Your task to perform on an android device: Toggle the flashlight Image 0: 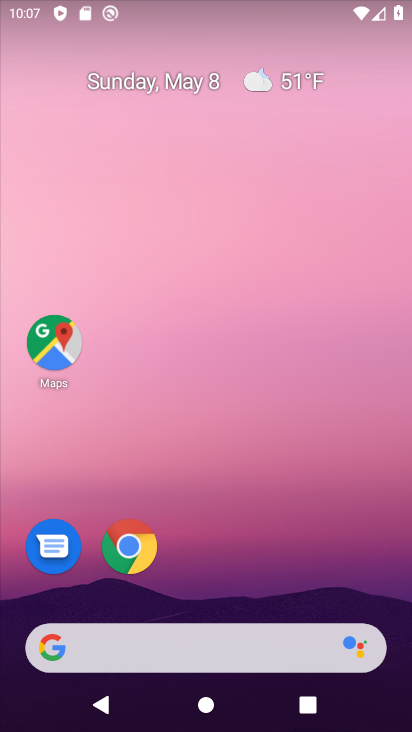
Step 0: drag from (242, 547) to (249, 61)
Your task to perform on an android device: Toggle the flashlight Image 1: 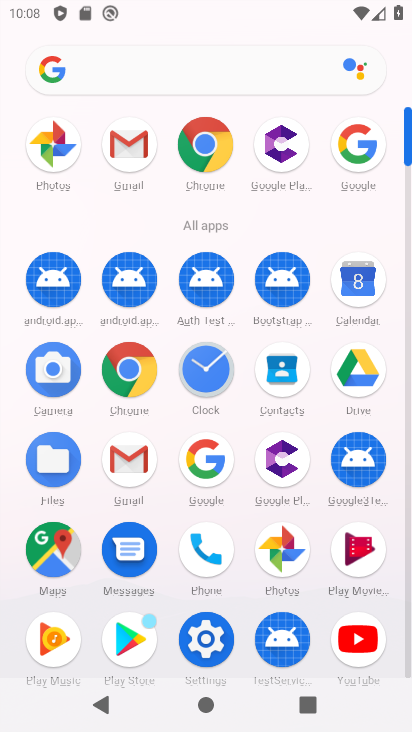
Step 1: drag from (241, 571) to (233, 348)
Your task to perform on an android device: Toggle the flashlight Image 2: 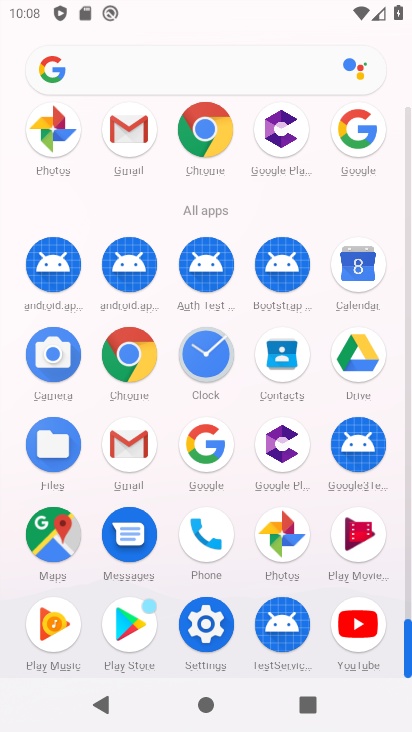
Step 2: click (206, 621)
Your task to perform on an android device: Toggle the flashlight Image 3: 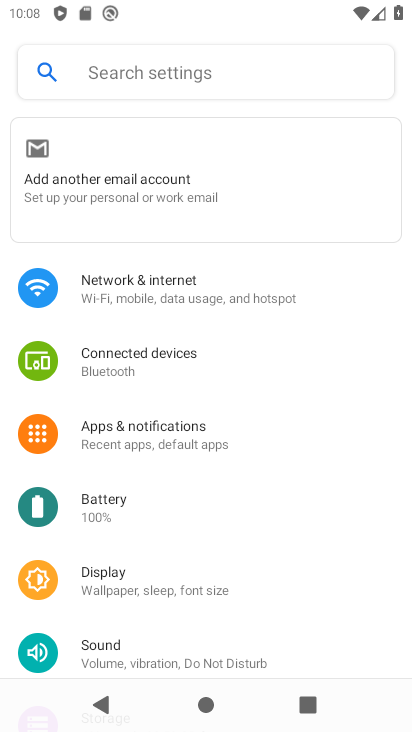
Step 3: drag from (224, 542) to (254, 402)
Your task to perform on an android device: Toggle the flashlight Image 4: 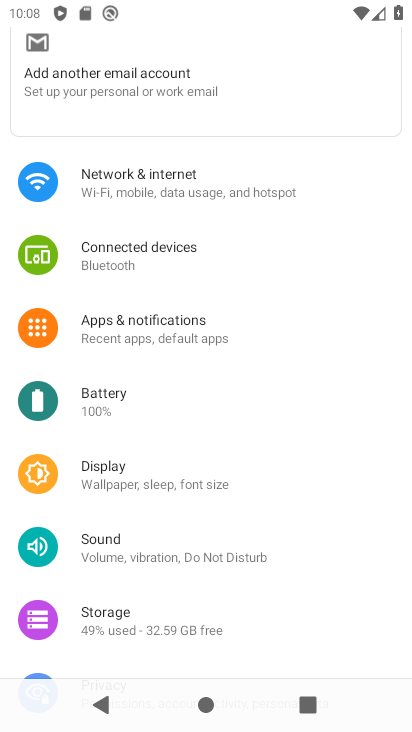
Step 4: drag from (227, 477) to (247, 404)
Your task to perform on an android device: Toggle the flashlight Image 5: 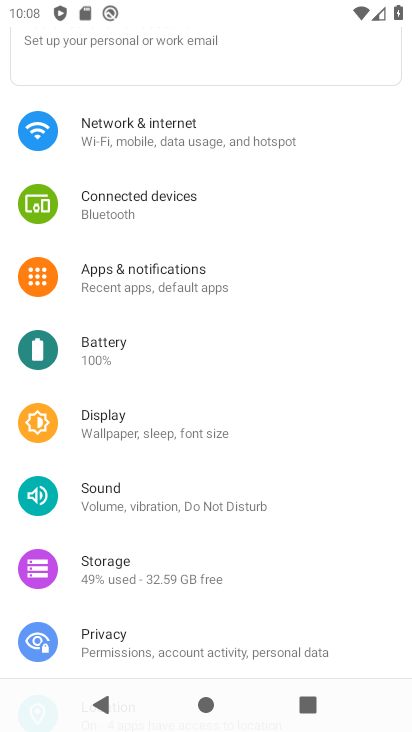
Step 5: click (208, 434)
Your task to perform on an android device: Toggle the flashlight Image 6: 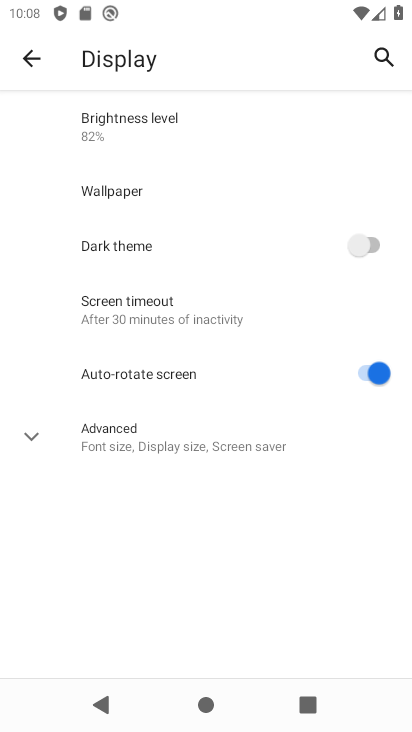
Step 6: click (145, 433)
Your task to perform on an android device: Toggle the flashlight Image 7: 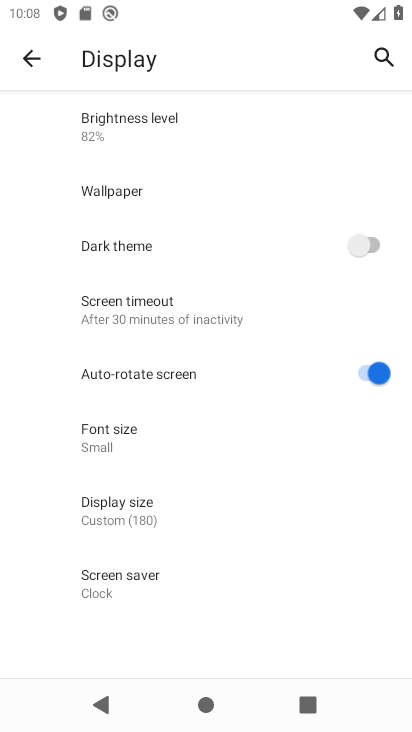
Step 7: press back button
Your task to perform on an android device: Toggle the flashlight Image 8: 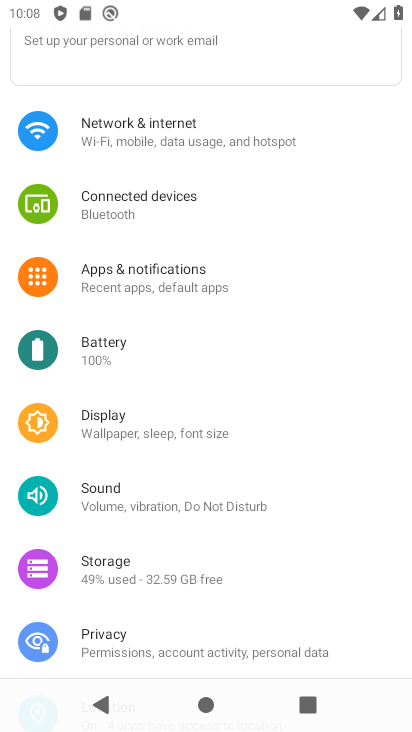
Step 8: drag from (113, 431) to (185, 340)
Your task to perform on an android device: Toggle the flashlight Image 9: 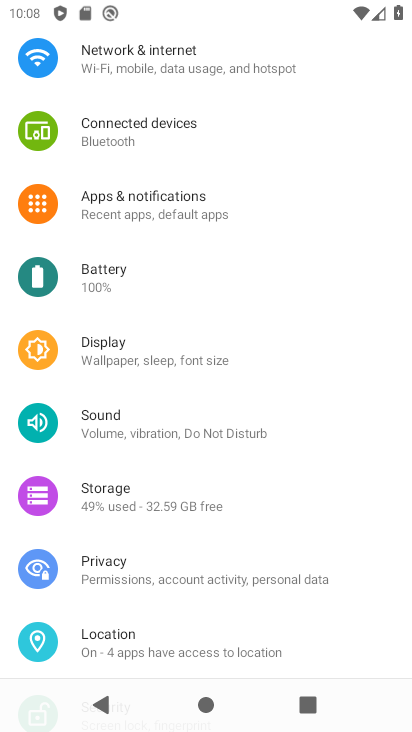
Step 9: drag from (164, 496) to (226, 391)
Your task to perform on an android device: Toggle the flashlight Image 10: 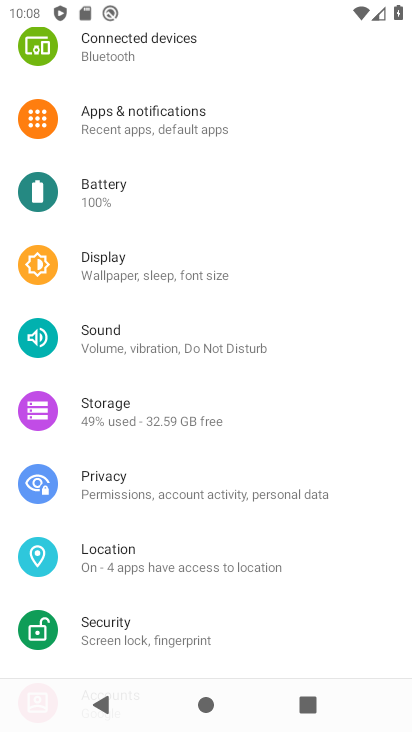
Step 10: drag from (180, 517) to (260, 415)
Your task to perform on an android device: Toggle the flashlight Image 11: 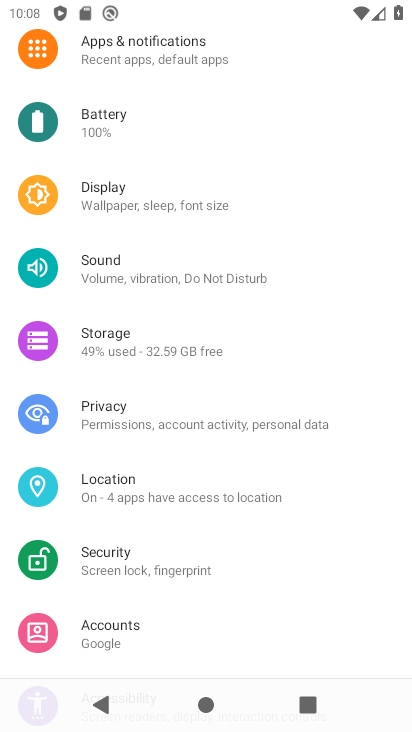
Step 11: drag from (201, 532) to (277, 437)
Your task to perform on an android device: Toggle the flashlight Image 12: 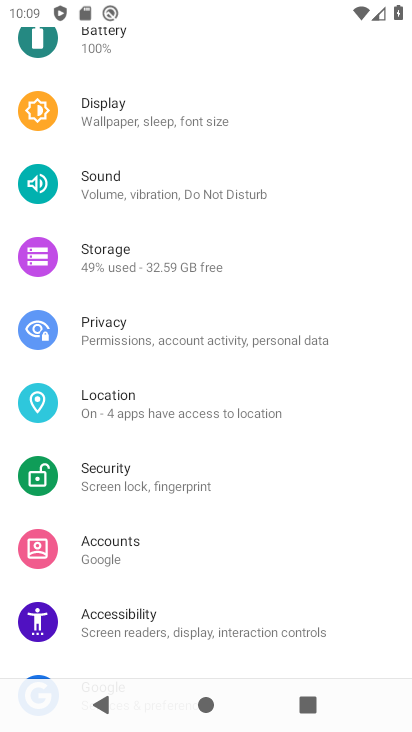
Step 12: click (107, 633)
Your task to perform on an android device: Toggle the flashlight Image 13: 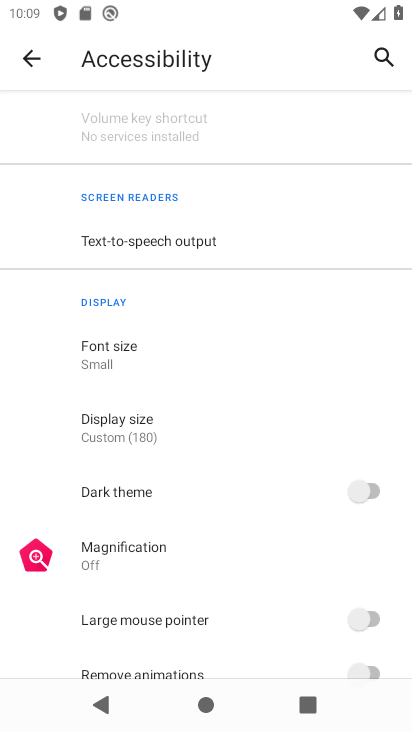
Step 13: drag from (159, 401) to (175, 313)
Your task to perform on an android device: Toggle the flashlight Image 14: 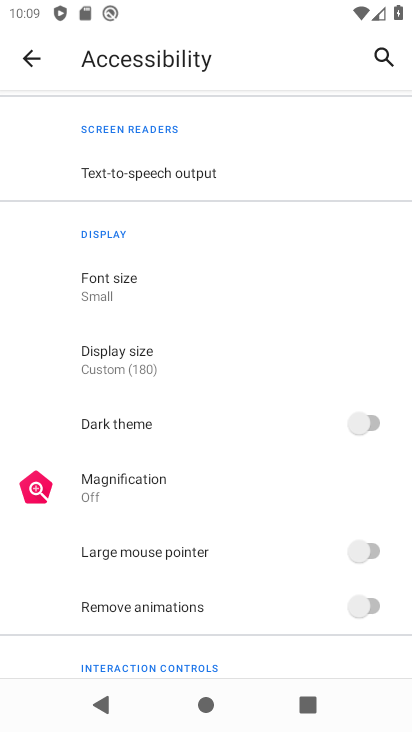
Step 14: drag from (185, 415) to (233, 331)
Your task to perform on an android device: Toggle the flashlight Image 15: 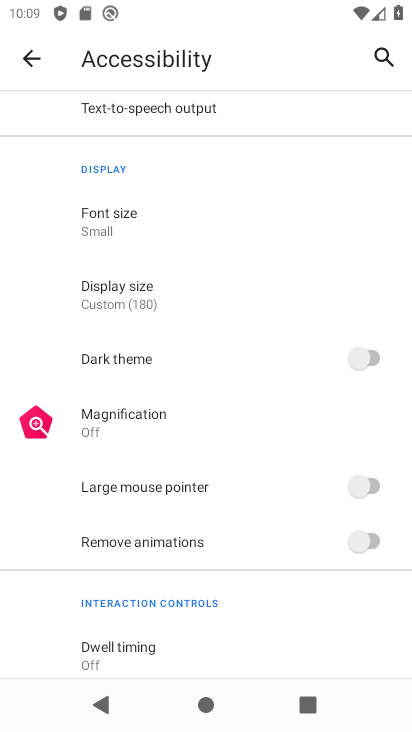
Step 15: drag from (166, 455) to (222, 325)
Your task to perform on an android device: Toggle the flashlight Image 16: 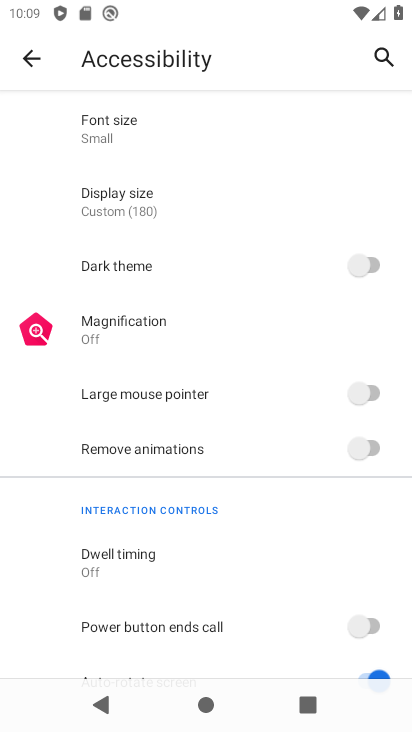
Step 16: drag from (152, 502) to (195, 415)
Your task to perform on an android device: Toggle the flashlight Image 17: 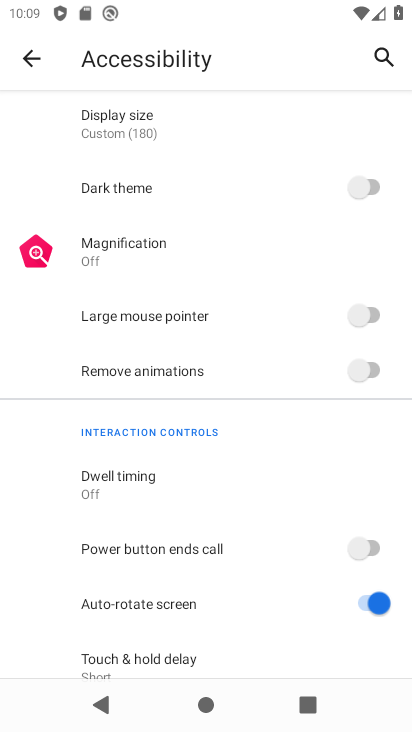
Step 17: drag from (169, 521) to (231, 397)
Your task to perform on an android device: Toggle the flashlight Image 18: 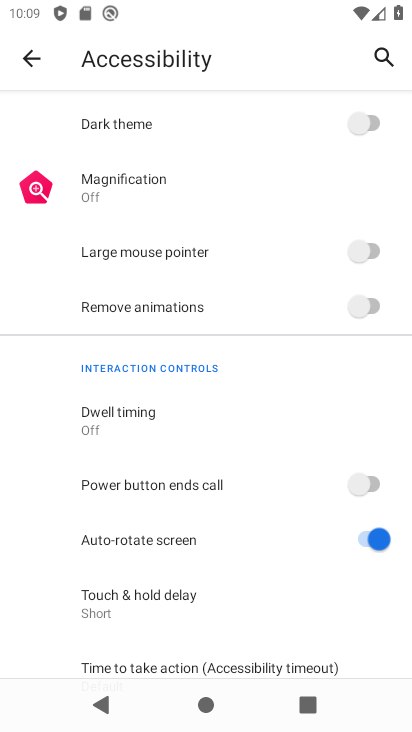
Step 18: drag from (184, 506) to (253, 382)
Your task to perform on an android device: Toggle the flashlight Image 19: 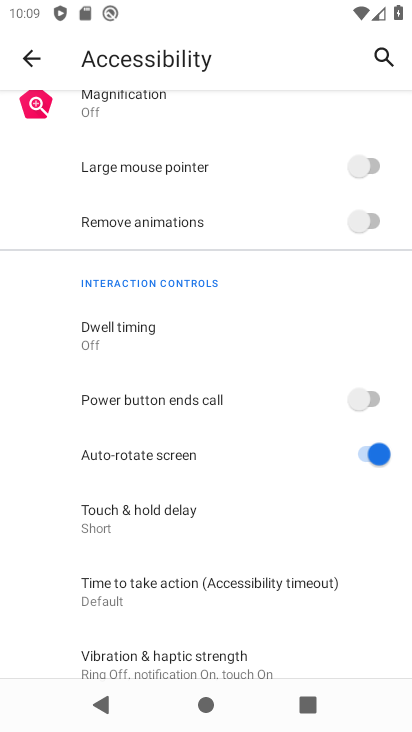
Step 19: drag from (177, 513) to (242, 422)
Your task to perform on an android device: Toggle the flashlight Image 20: 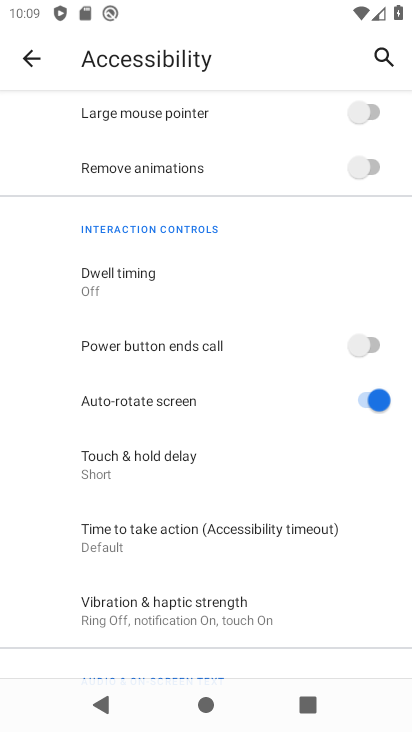
Step 20: drag from (163, 524) to (217, 391)
Your task to perform on an android device: Toggle the flashlight Image 21: 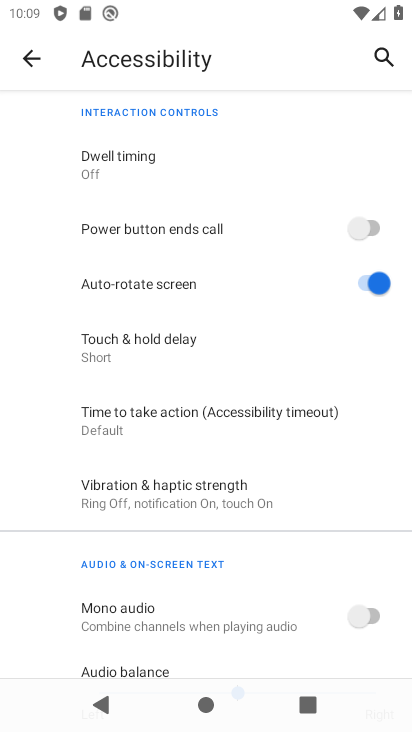
Step 21: drag from (143, 529) to (213, 408)
Your task to perform on an android device: Toggle the flashlight Image 22: 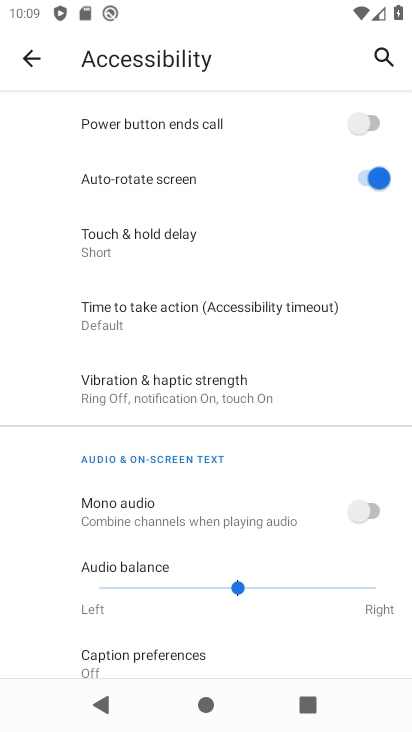
Step 22: drag from (179, 482) to (227, 375)
Your task to perform on an android device: Toggle the flashlight Image 23: 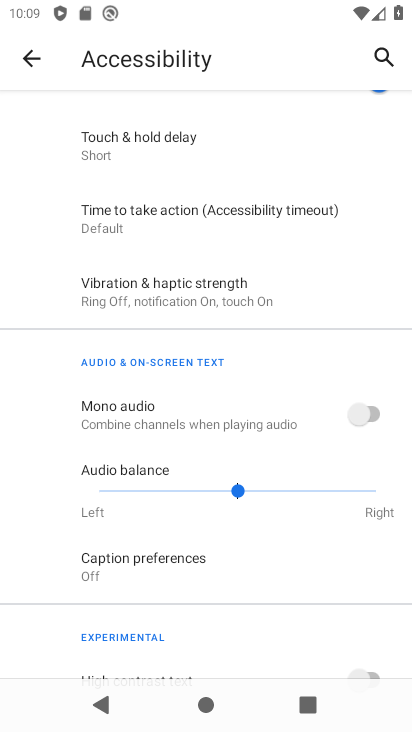
Step 23: drag from (173, 504) to (218, 395)
Your task to perform on an android device: Toggle the flashlight Image 24: 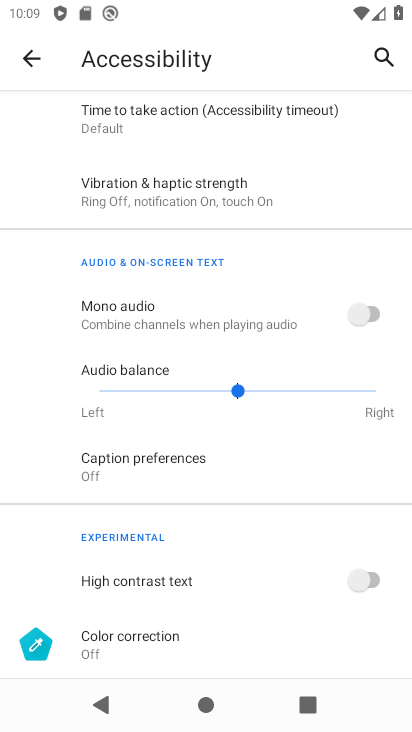
Step 24: drag from (167, 518) to (225, 423)
Your task to perform on an android device: Toggle the flashlight Image 25: 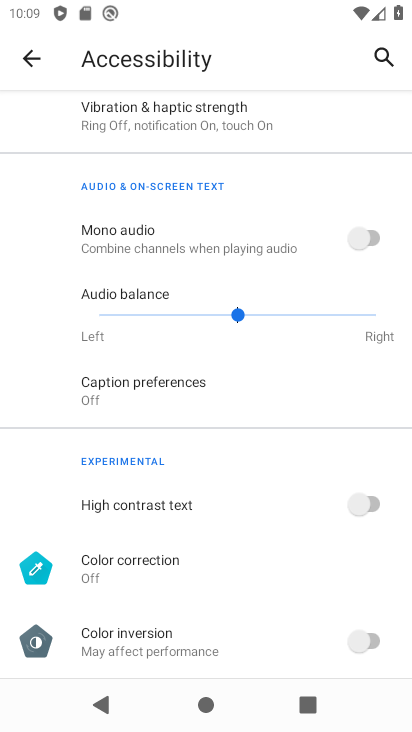
Step 25: drag from (196, 517) to (253, 423)
Your task to perform on an android device: Toggle the flashlight Image 26: 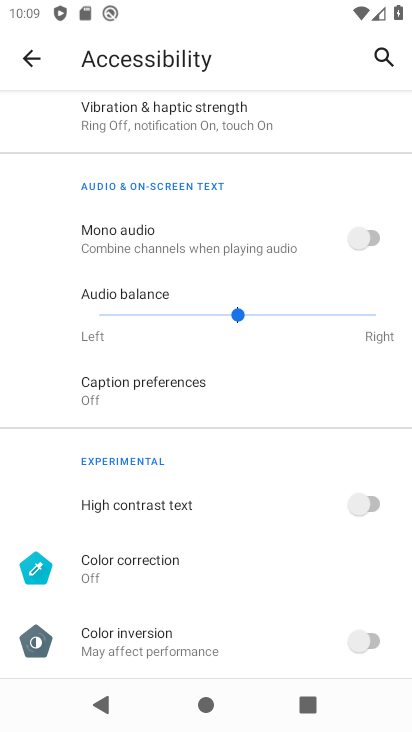
Step 26: press back button
Your task to perform on an android device: Toggle the flashlight Image 27: 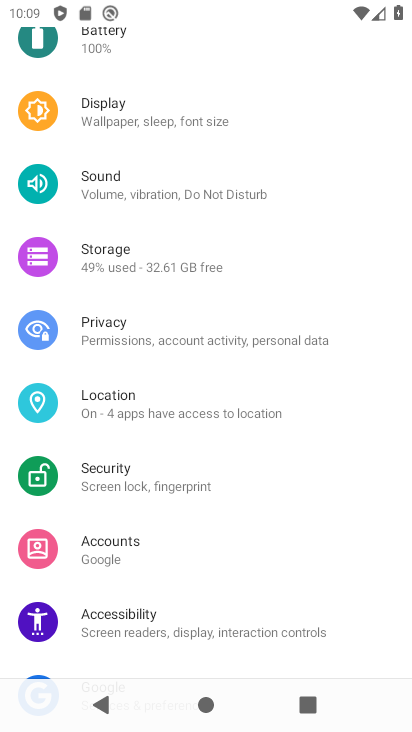
Step 27: drag from (198, 549) to (258, 368)
Your task to perform on an android device: Toggle the flashlight Image 28: 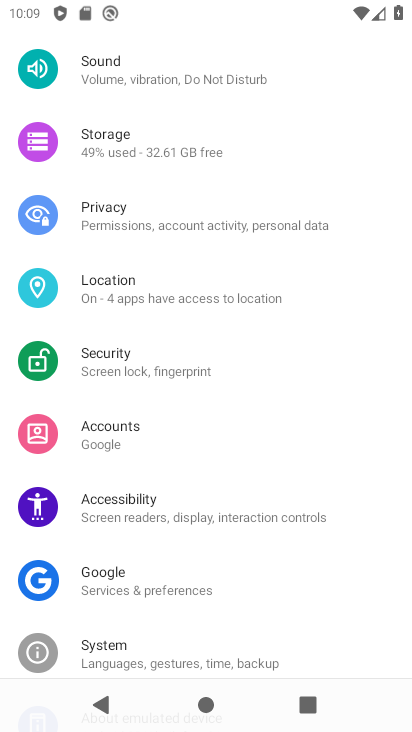
Step 28: drag from (187, 511) to (277, 371)
Your task to perform on an android device: Toggle the flashlight Image 29: 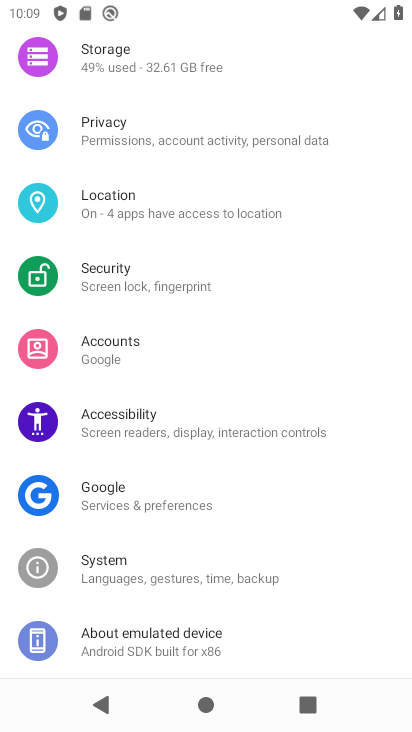
Step 29: click (192, 563)
Your task to perform on an android device: Toggle the flashlight Image 30: 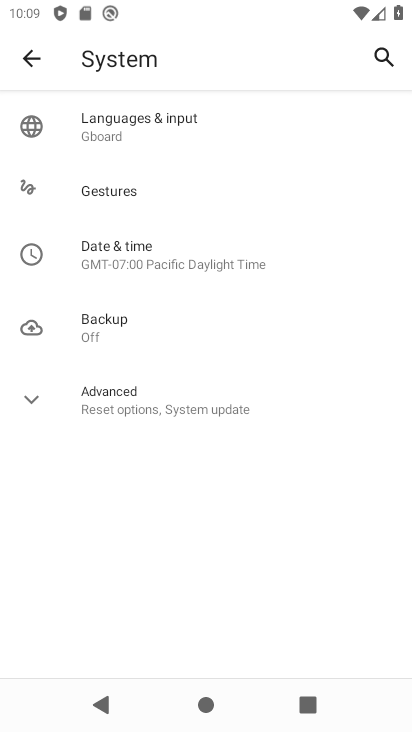
Step 30: click (230, 413)
Your task to perform on an android device: Toggle the flashlight Image 31: 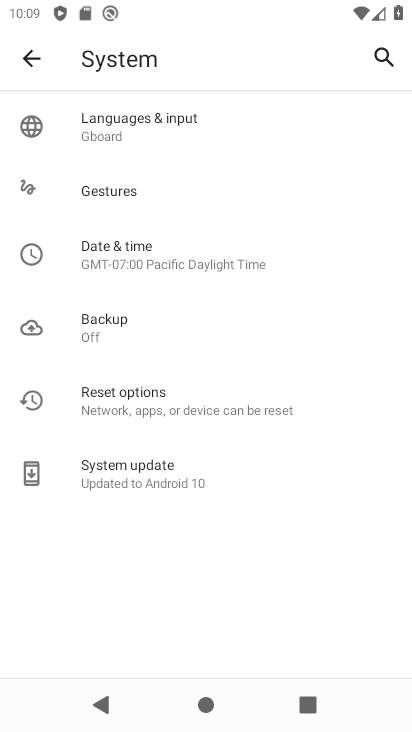
Step 31: task complete